Your task to perform on an android device: change text size in settings app Image 0: 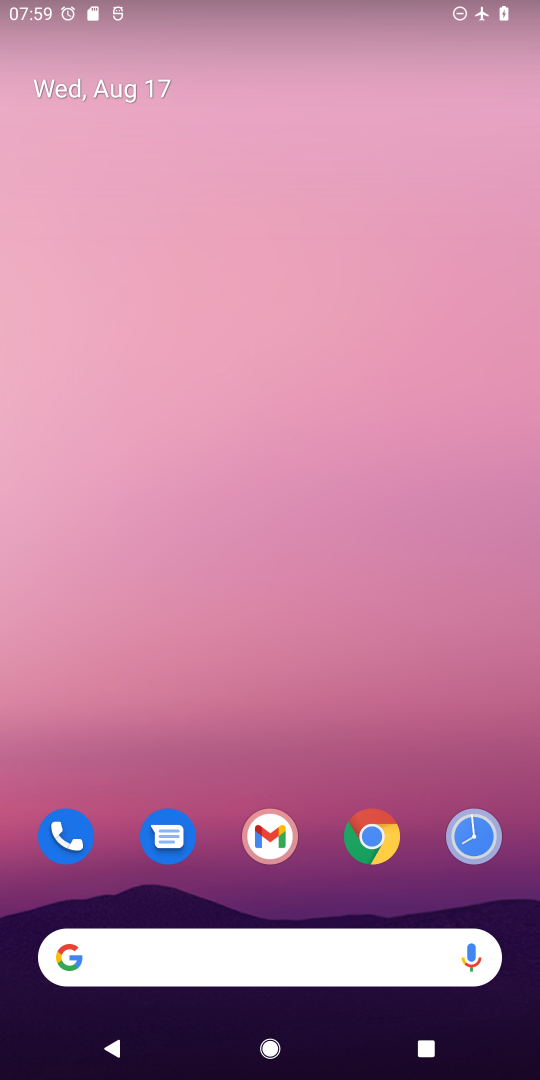
Step 0: drag from (261, 797) to (338, 236)
Your task to perform on an android device: change text size in settings app Image 1: 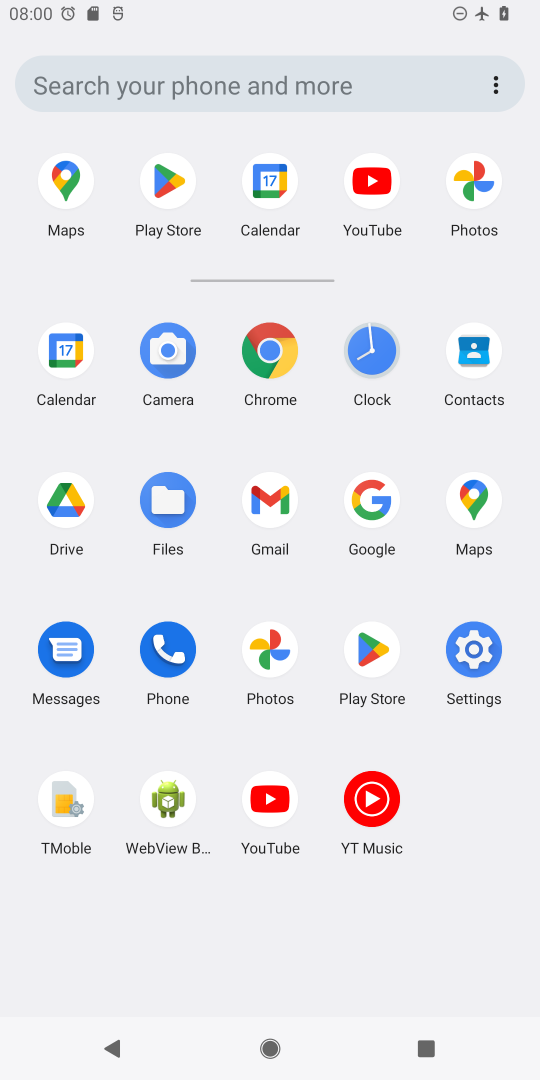
Step 1: click (465, 640)
Your task to perform on an android device: change text size in settings app Image 2: 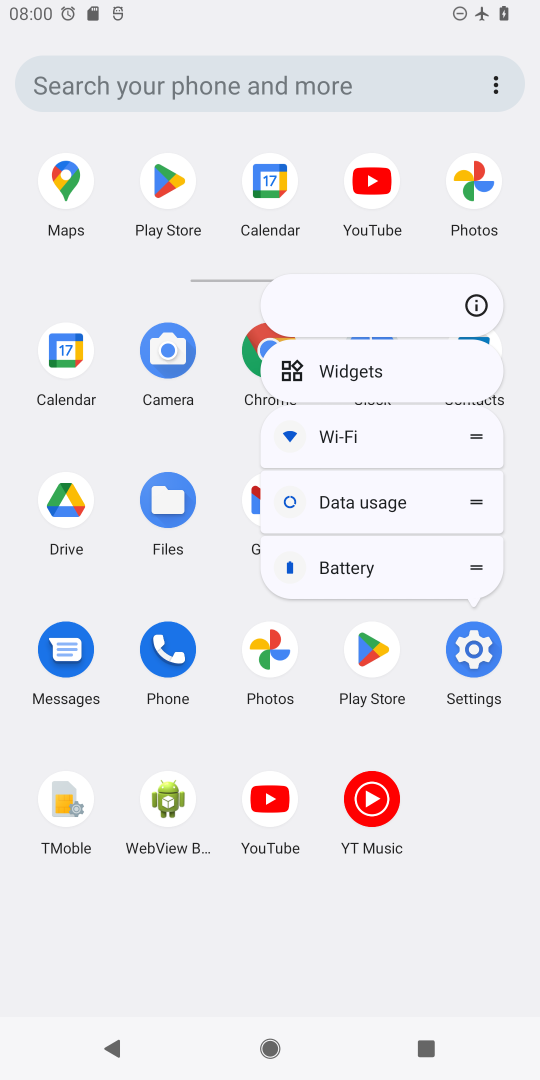
Step 2: click (477, 653)
Your task to perform on an android device: change text size in settings app Image 3: 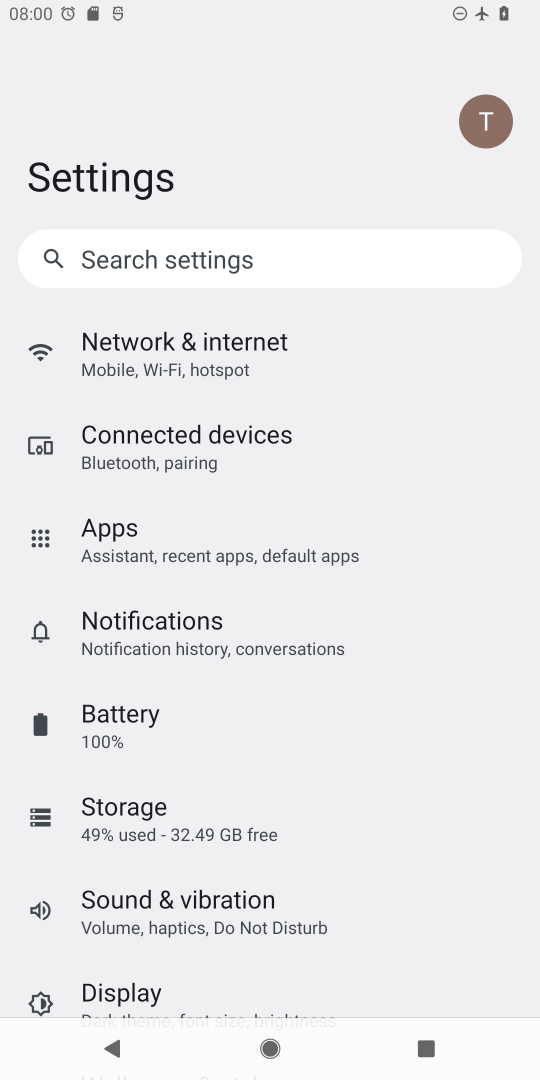
Step 3: drag from (191, 910) to (266, 499)
Your task to perform on an android device: change text size in settings app Image 4: 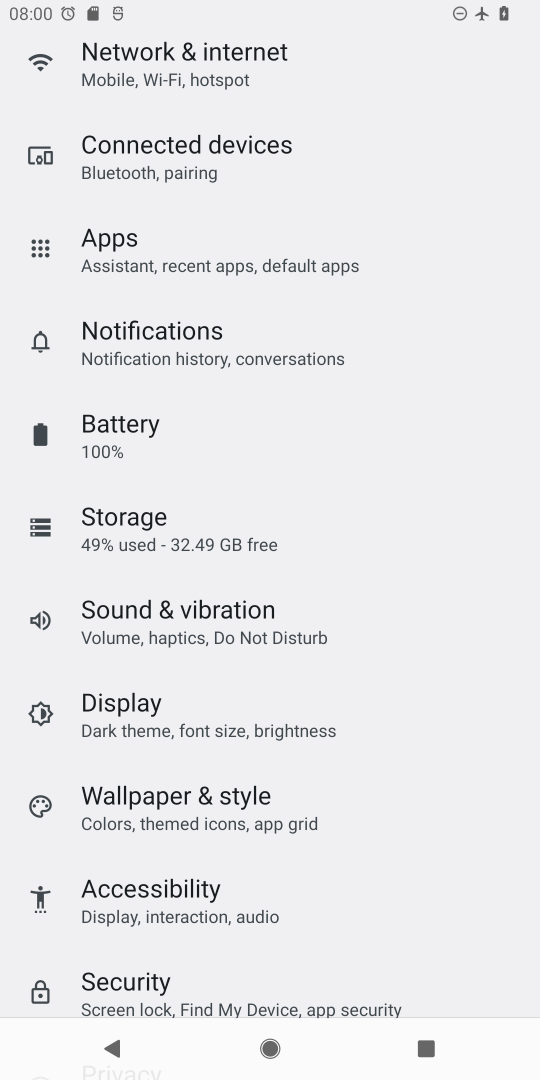
Step 4: drag from (148, 882) to (227, 522)
Your task to perform on an android device: change text size in settings app Image 5: 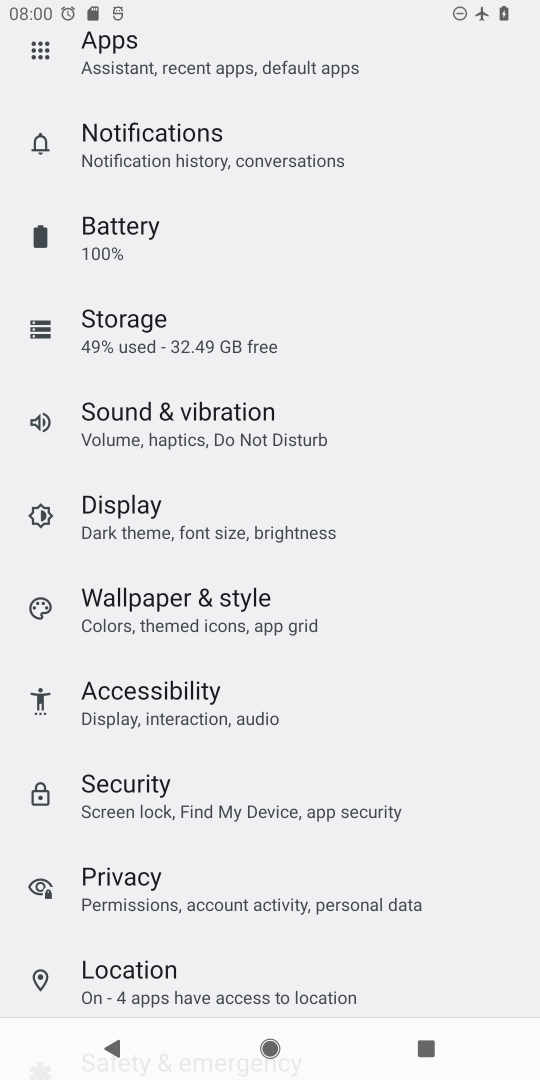
Step 5: drag from (250, 865) to (329, 473)
Your task to perform on an android device: change text size in settings app Image 6: 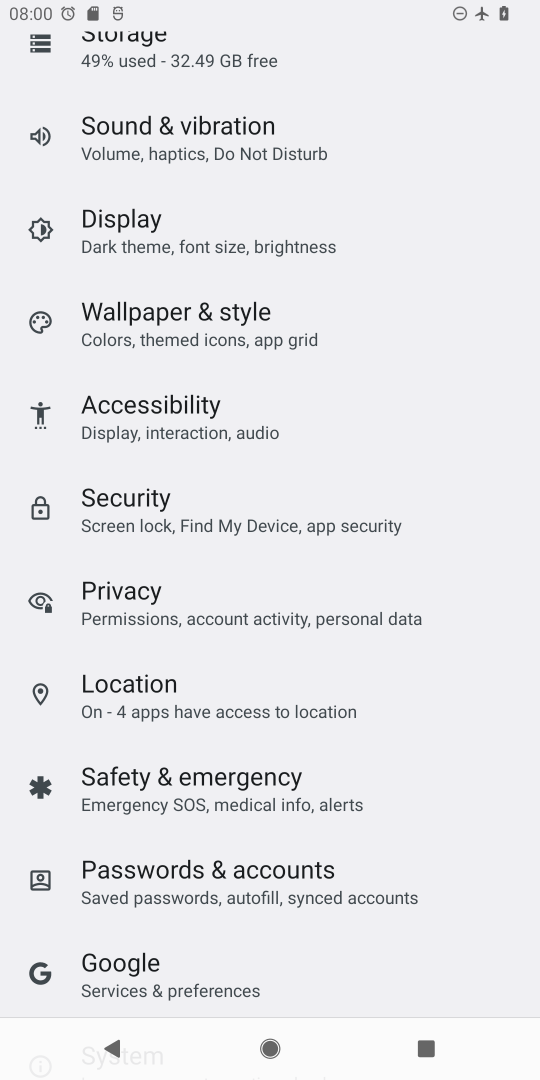
Step 6: click (168, 412)
Your task to perform on an android device: change text size in settings app Image 7: 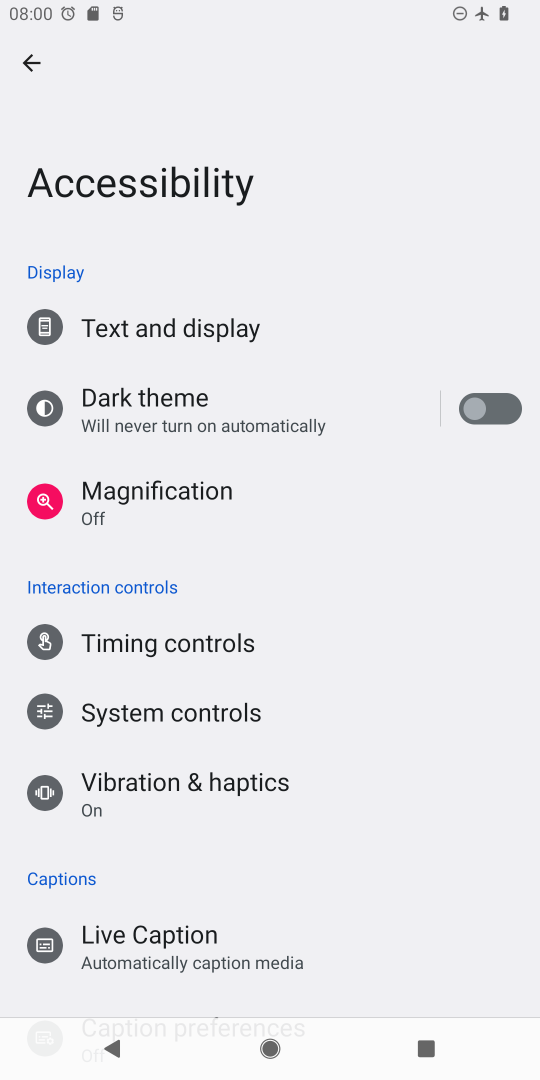
Step 7: click (159, 310)
Your task to perform on an android device: change text size in settings app Image 8: 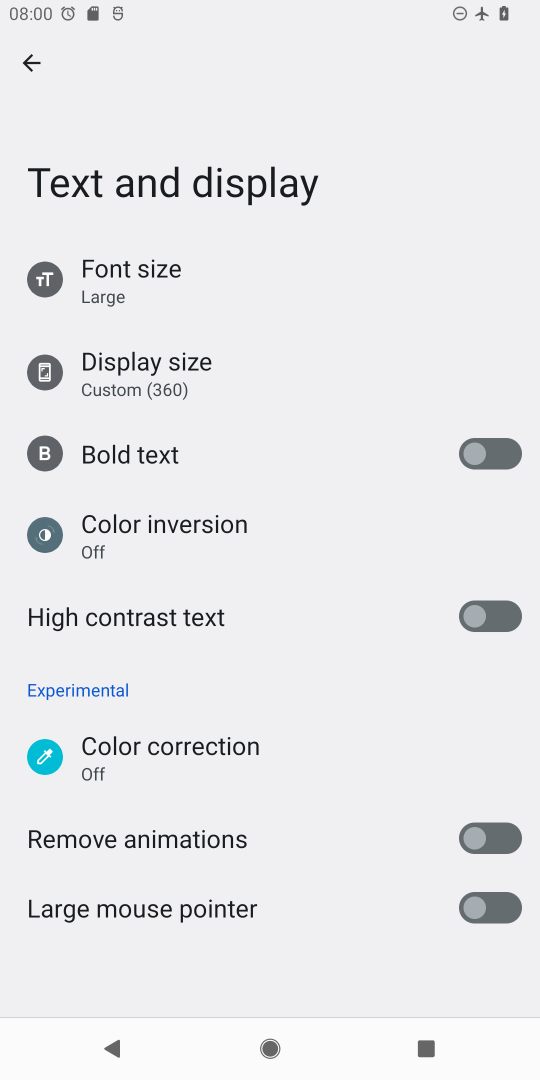
Step 8: click (159, 283)
Your task to perform on an android device: change text size in settings app Image 9: 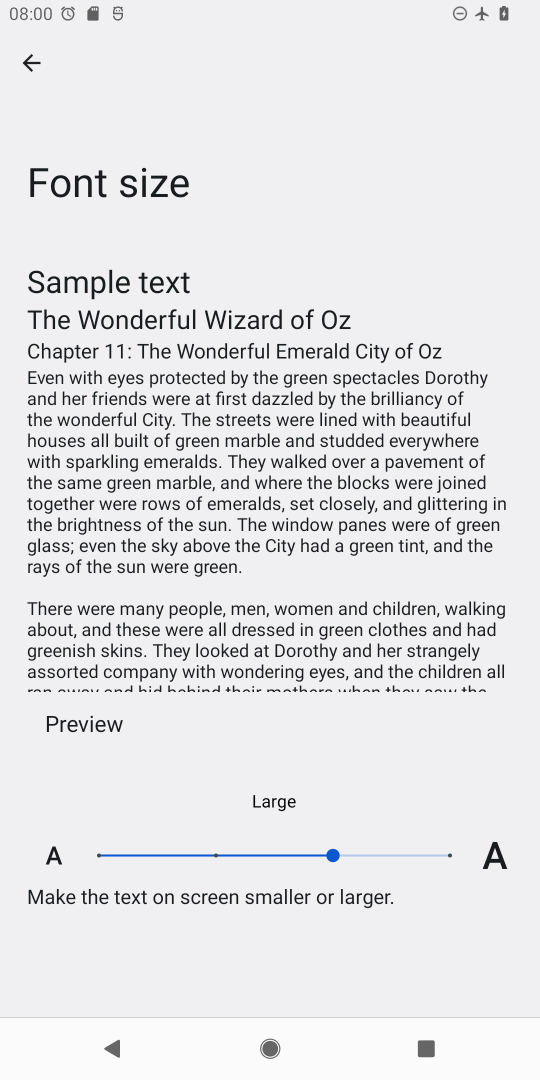
Step 9: click (449, 851)
Your task to perform on an android device: change text size in settings app Image 10: 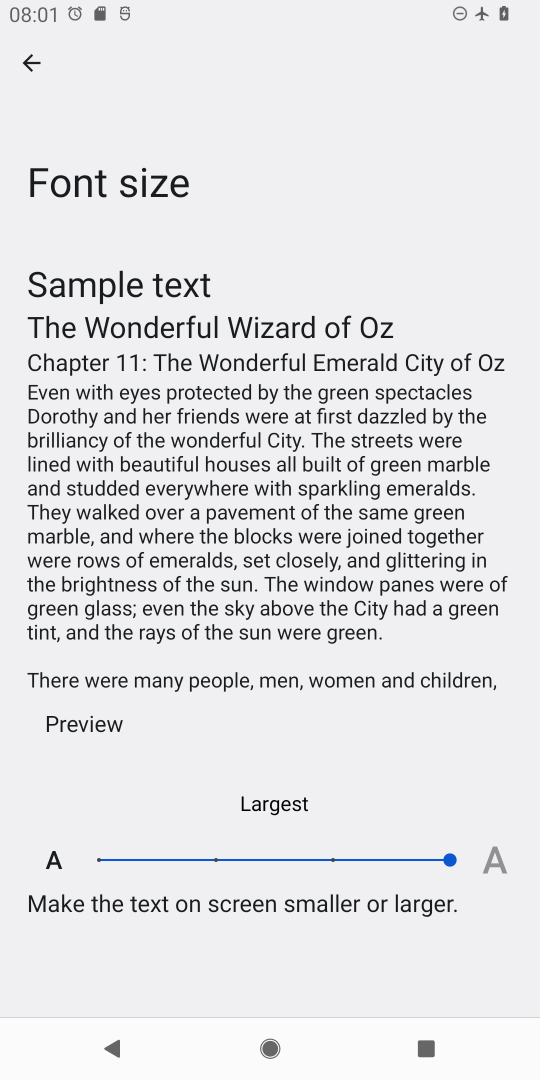
Step 10: task complete